Your task to perform on an android device: Is it going to rain this weekend? Image 0: 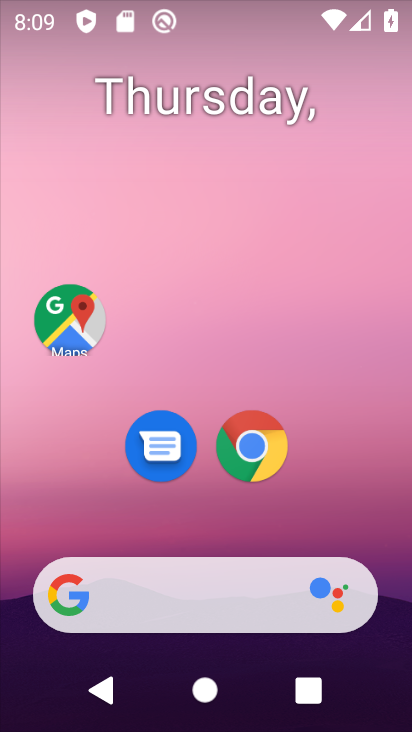
Step 0: click (163, 601)
Your task to perform on an android device: Is it going to rain this weekend? Image 1: 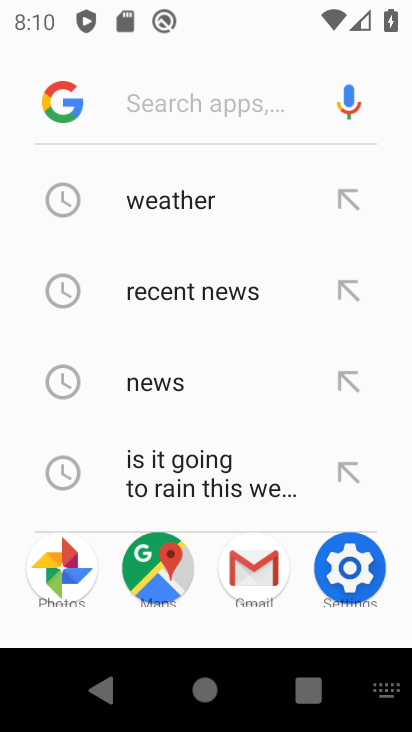
Step 1: click (198, 203)
Your task to perform on an android device: Is it going to rain this weekend? Image 2: 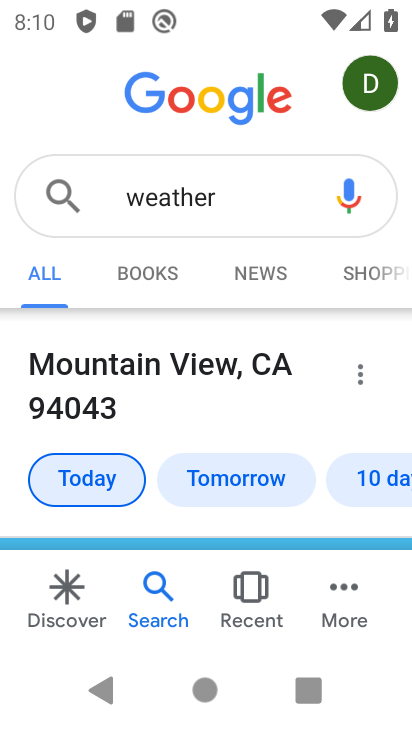
Step 2: click (388, 496)
Your task to perform on an android device: Is it going to rain this weekend? Image 3: 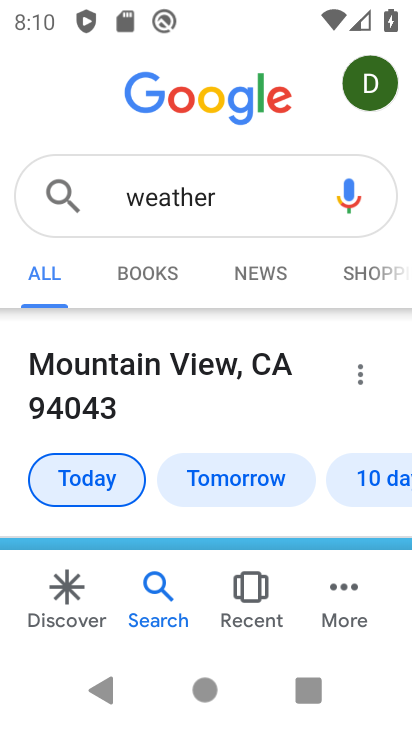
Step 3: click (388, 486)
Your task to perform on an android device: Is it going to rain this weekend? Image 4: 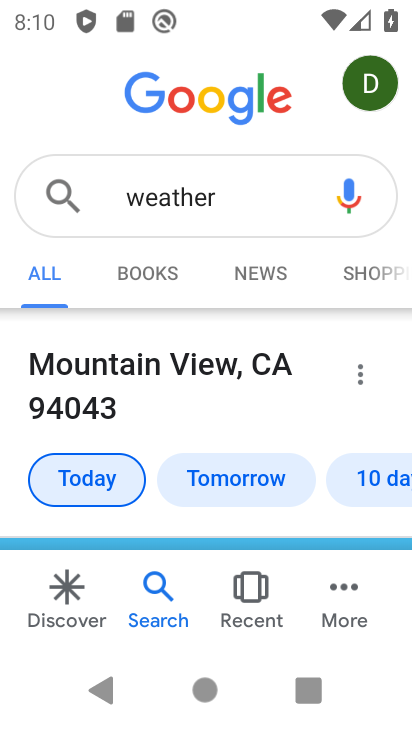
Step 4: task complete